Your task to perform on an android device: empty trash in google photos Image 0: 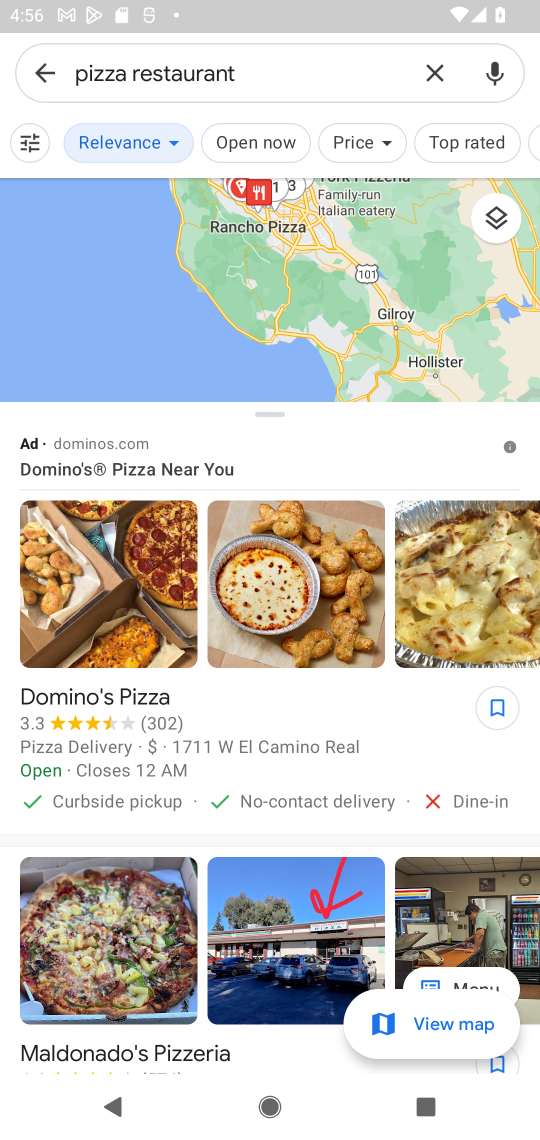
Step 0: click (446, 91)
Your task to perform on an android device: empty trash in google photos Image 1: 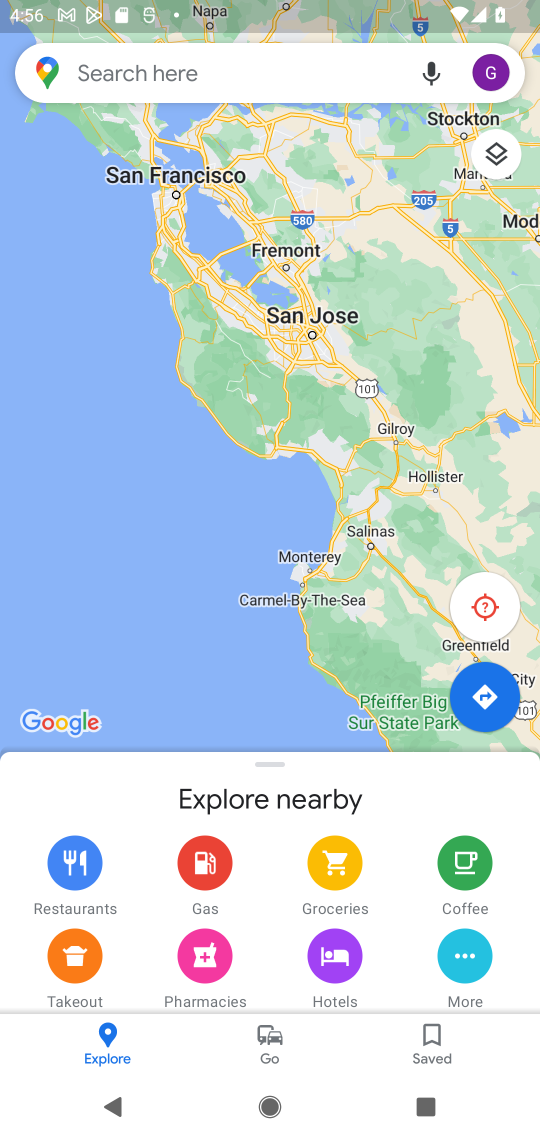
Step 1: click (317, 75)
Your task to perform on an android device: empty trash in google photos Image 2: 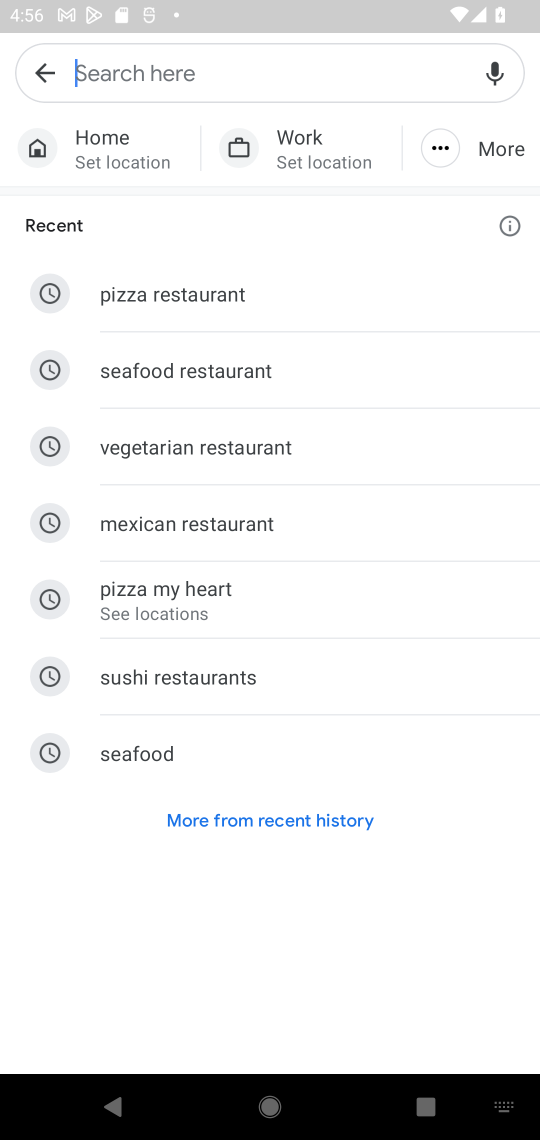
Step 2: press home button
Your task to perform on an android device: empty trash in google photos Image 3: 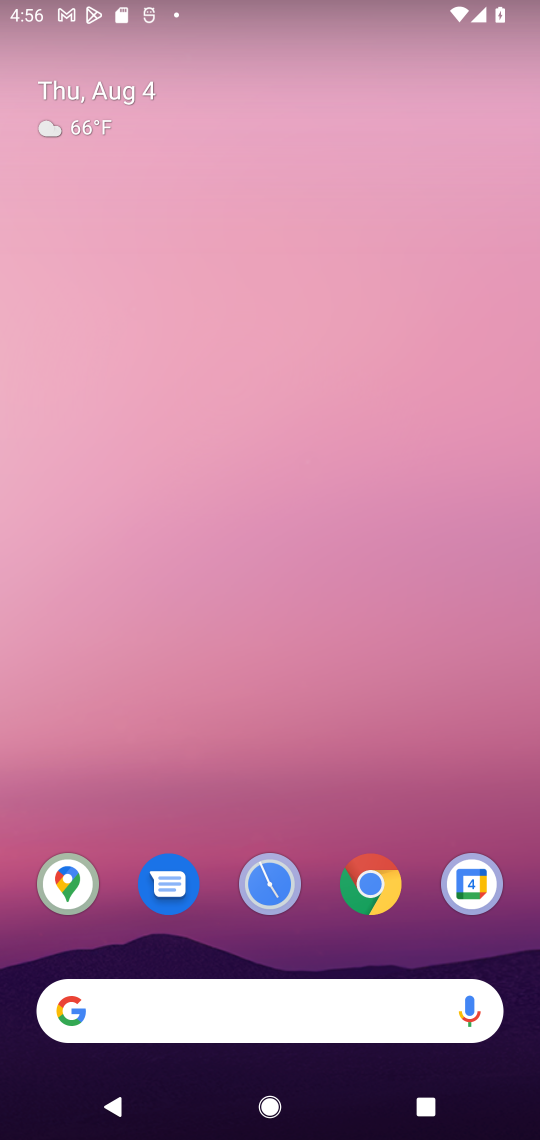
Step 3: drag from (321, 969) to (344, 140)
Your task to perform on an android device: empty trash in google photos Image 4: 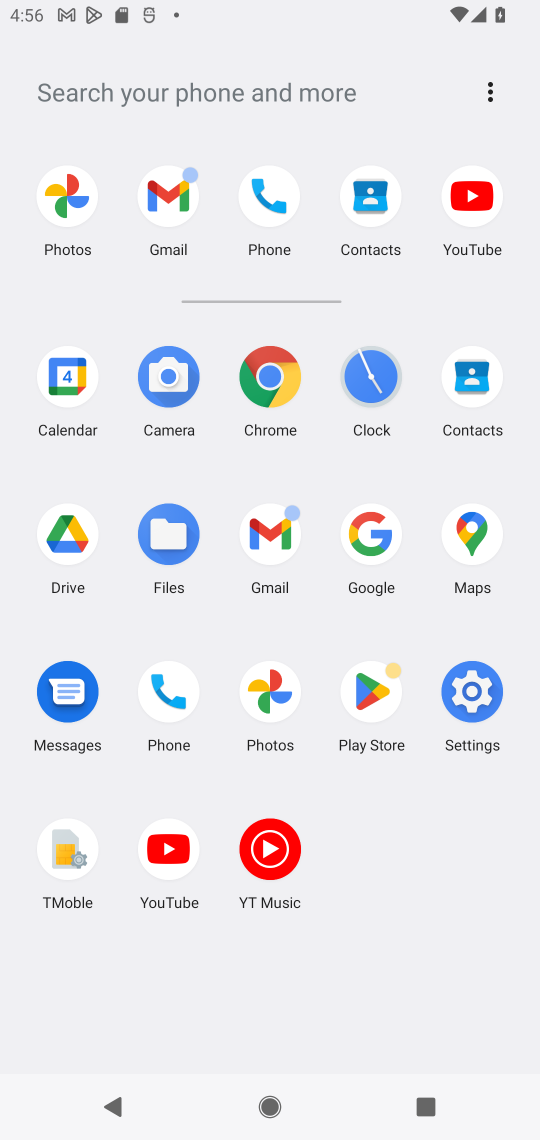
Step 4: click (84, 190)
Your task to perform on an android device: empty trash in google photos Image 5: 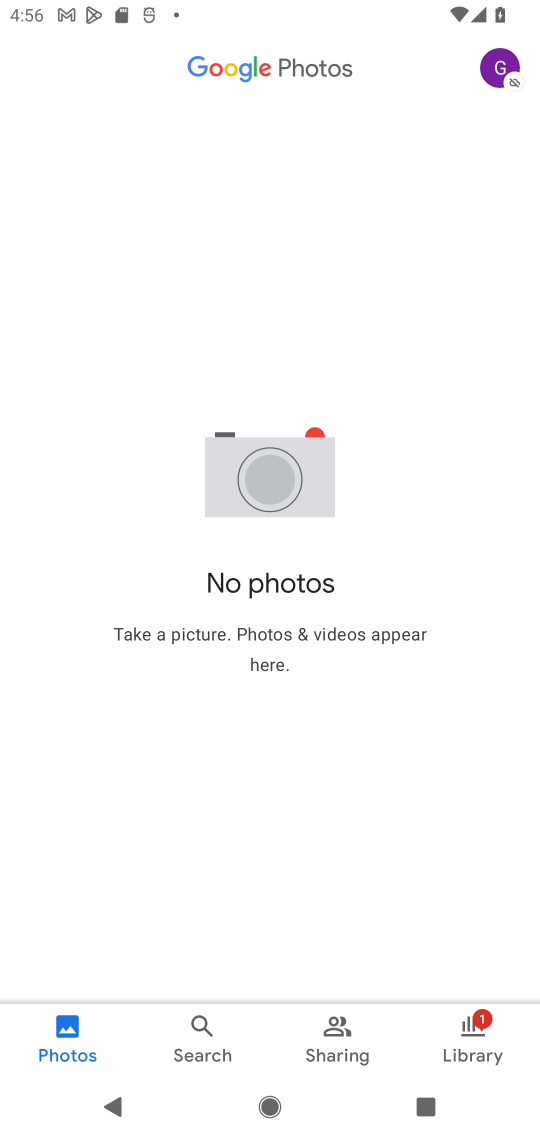
Step 5: task complete